Your task to perform on an android device: Go to Android settings Image 0: 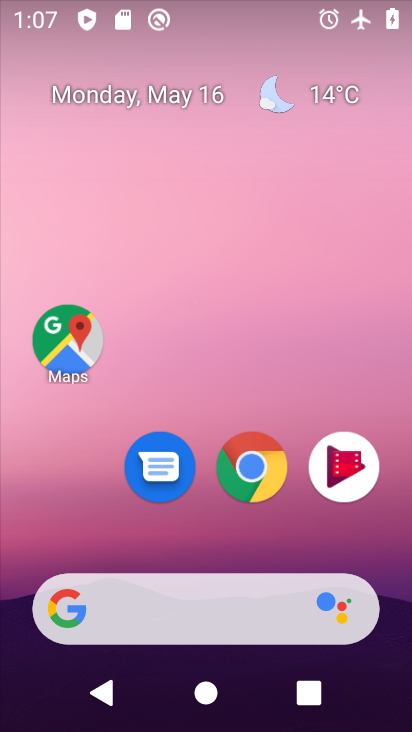
Step 0: drag from (261, 372) to (261, 90)
Your task to perform on an android device: Go to Android settings Image 1: 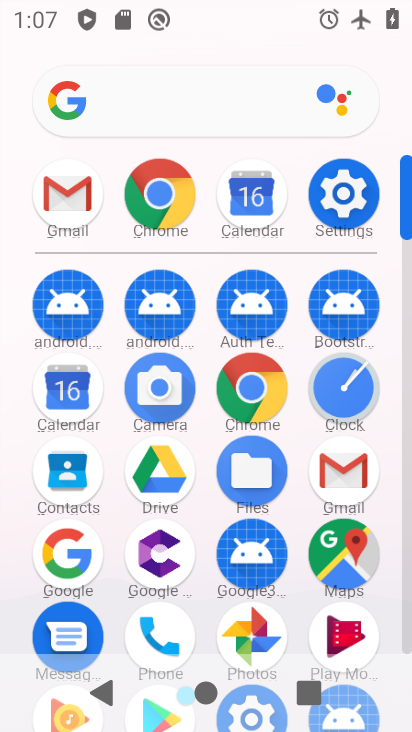
Step 1: click (335, 192)
Your task to perform on an android device: Go to Android settings Image 2: 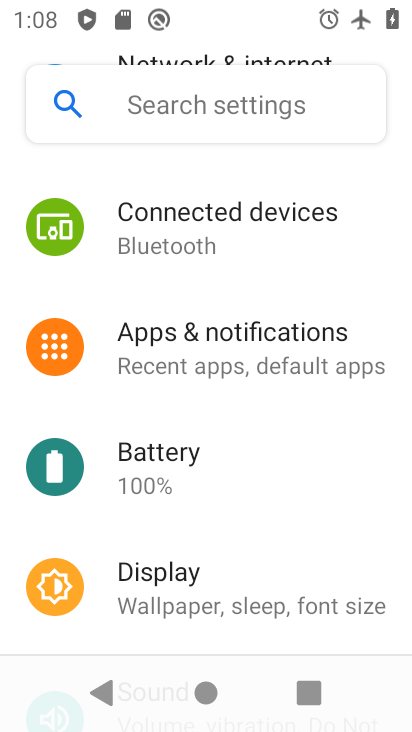
Step 2: task complete